Your task to perform on an android device: Go to Maps Image 0: 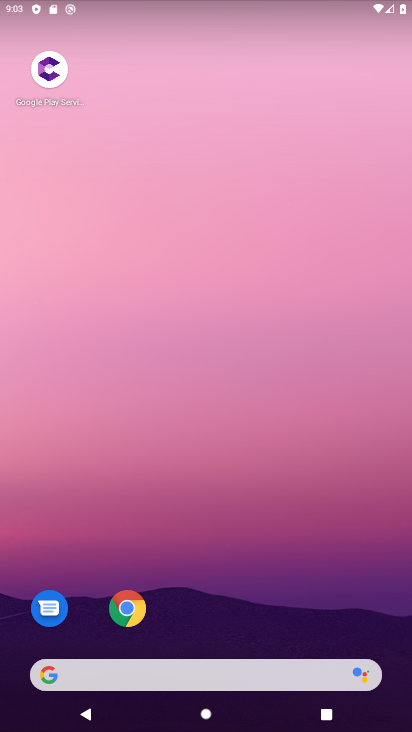
Step 0: drag from (39, 440) to (395, 464)
Your task to perform on an android device: Go to Maps Image 1: 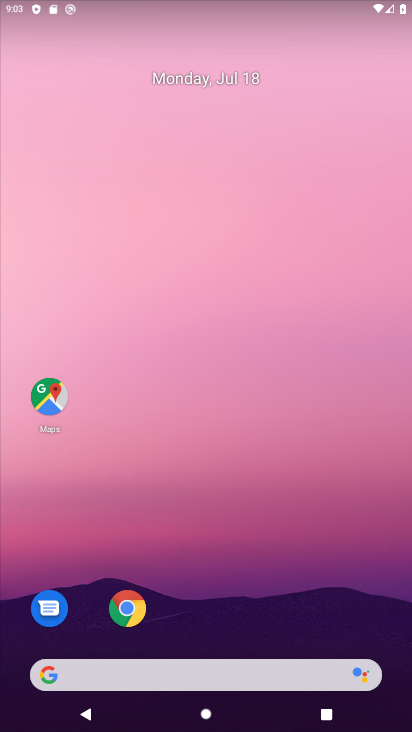
Step 1: click (48, 394)
Your task to perform on an android device: Go to Maps Image 2: 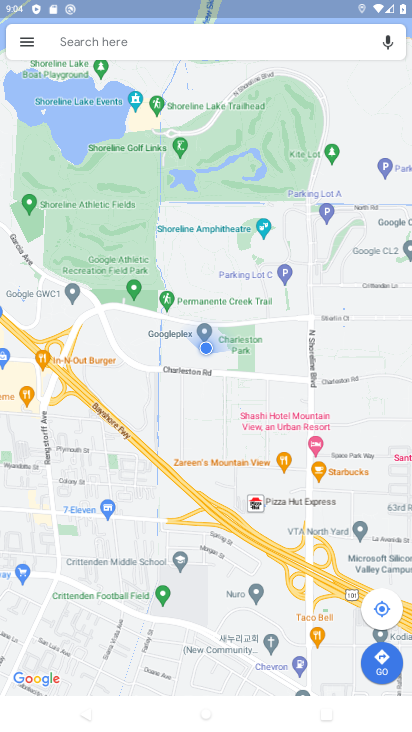
Step 2: task complete